Your task to perform on an android device: Open Google Maps Image 0: 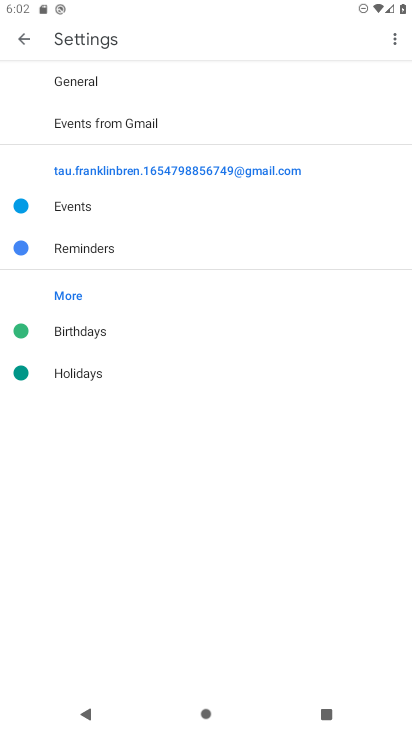
Step 0: press home button
Your task to perform on an android device: Open Google Maps Image 1: 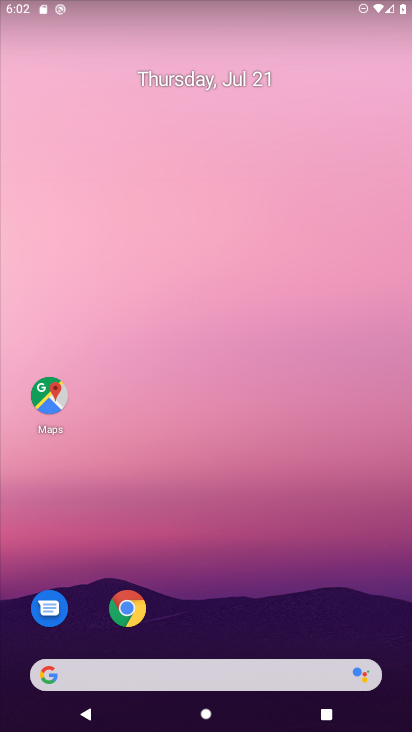
Step 1: click (48, 395)
Your task to perform on an android device: Open Google Maps Image 2: 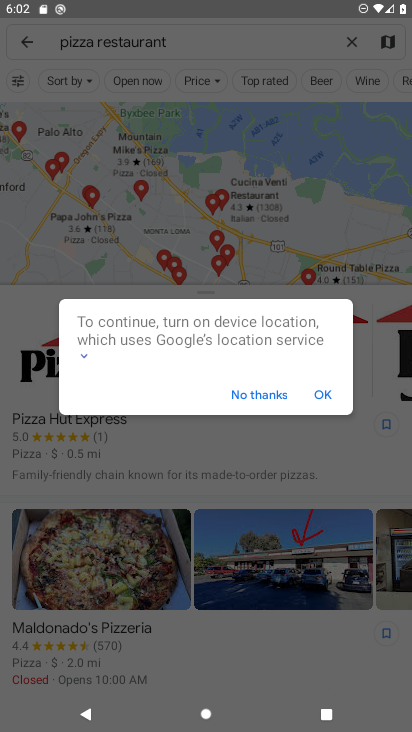
Step 2: click (241, 387)
Your task to perform on an android device: Open Google Maps Image 3: 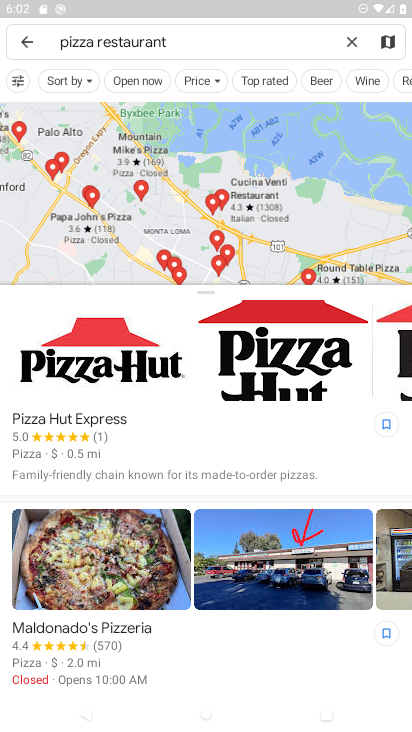
Step 3: task complete